Your task to perform on an android device: Go to Google maps Image 0: 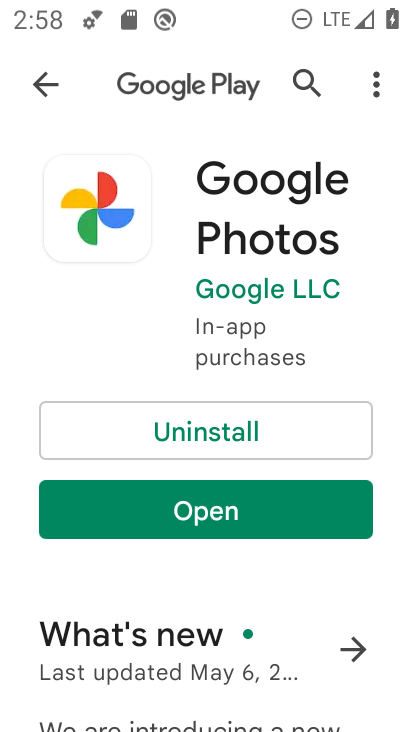
Step 0: press home button
Your task to perform on an android device: Go to Google maps Image 1: 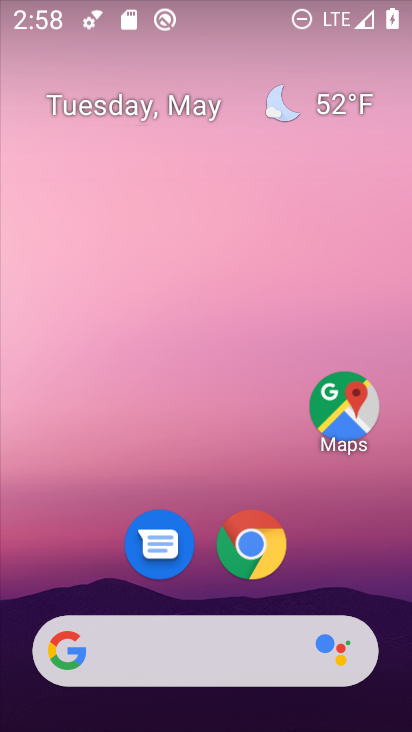
Step 1: drag from (369, 506) to (369, 221)
Your task to perform on an android device: Go to Google maps Image 2: 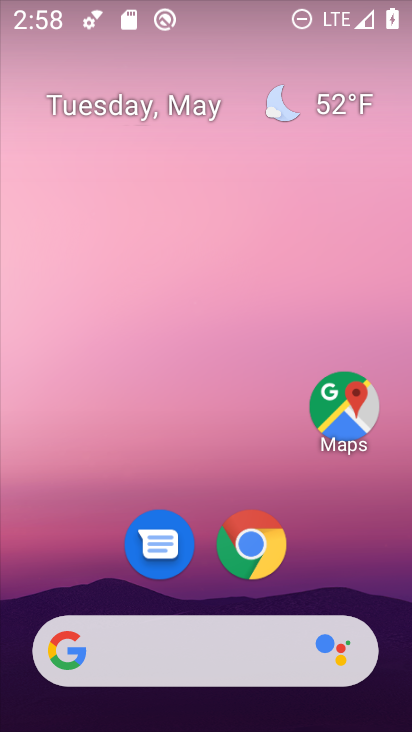
Step 2: drag from (323, 569) to (352, 202)
Your task to perform on an android device: Go to Google maps Image 3: 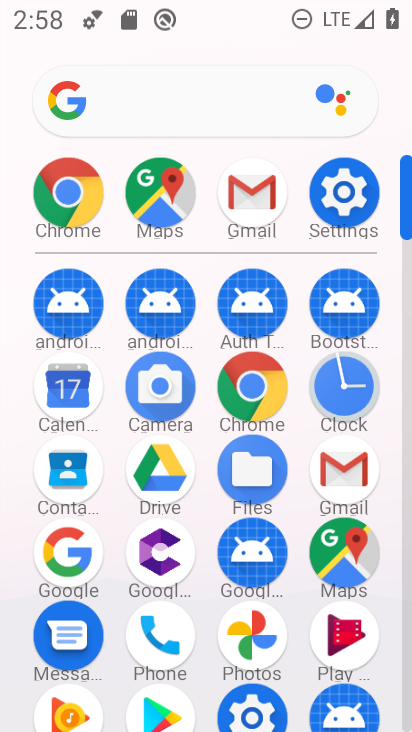
Step 3: click (353, 564)
Your task to perform on an android device: Go to Google maps Image 4: 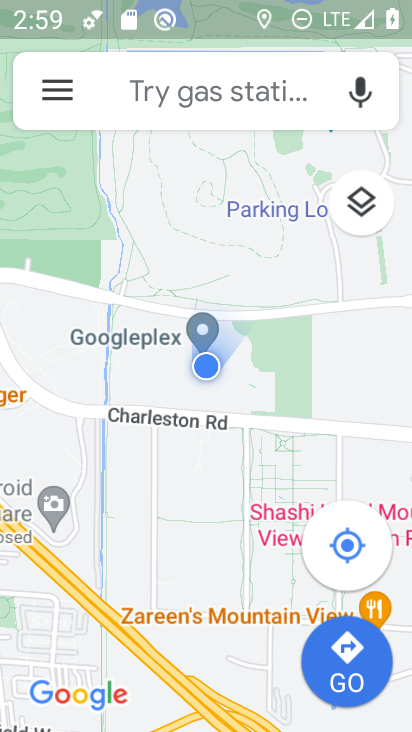
Step 4: task complete